Your task to perform on an android device: Is it going to rain today? Image 0: 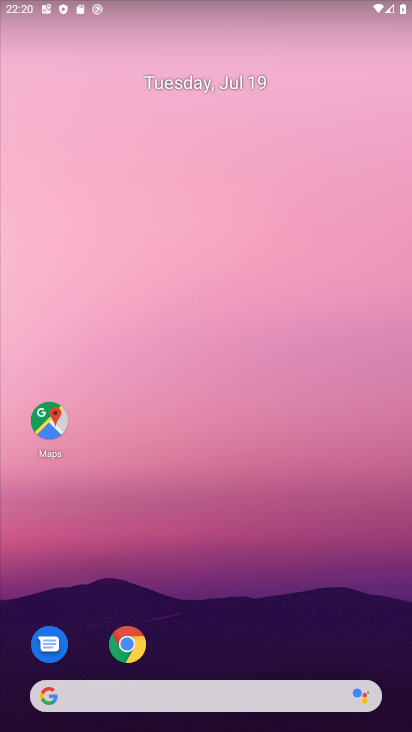
Step 0: drag from (198, 723) to (185, 120)
Your task to perform on an android device: Is it going to rain today? Image 1: 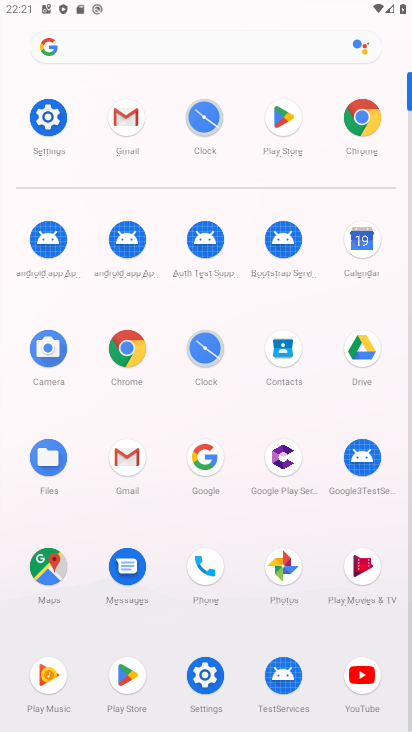
Step 1: click (203, 458)
Your task to perform on an android device: Is it going to rain today? Image 2: 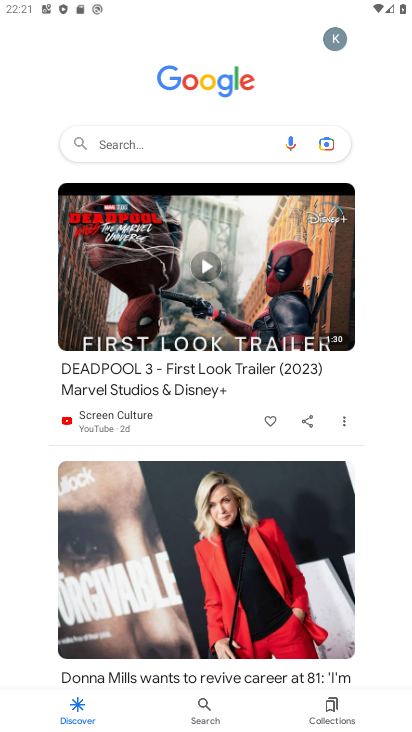
Step 2: click (199, 142)
Your task to perform on an android device: Is it going to rain today? Image 3: 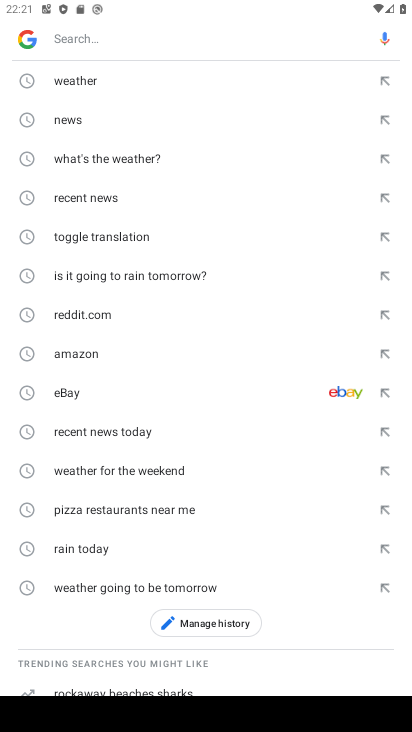
Step 3: click (60, 79)
Your task to perform on an android device: Is it going to rain today? Image 4: 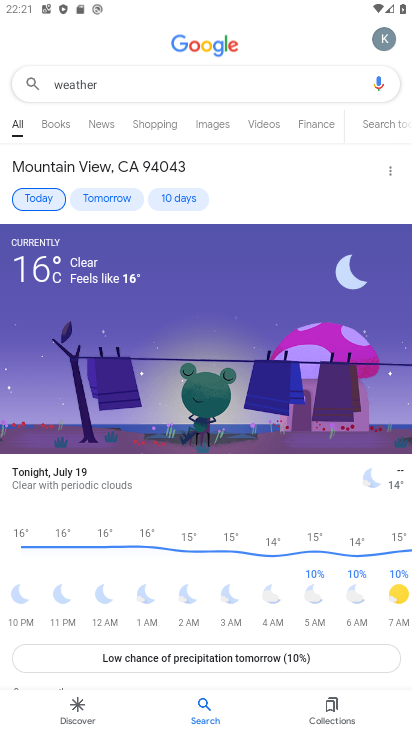
Step 4: click (48, 195)
Your task to perform on an android device: Is it going to rain today? Image 5: 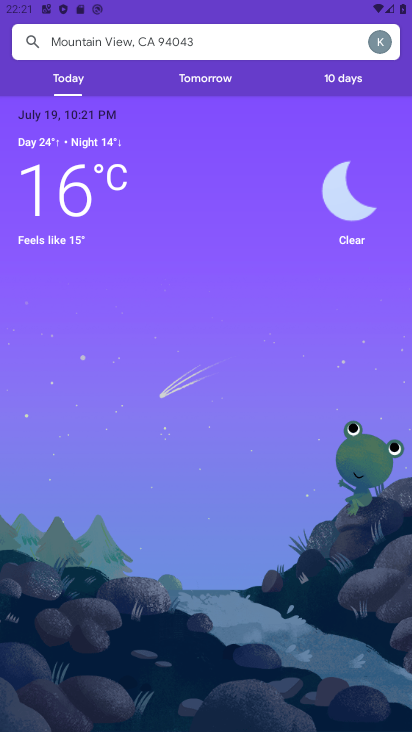
Step 5: task complete